Your task to perform on an android device: stop showing notifications on the lock screen Image 0: 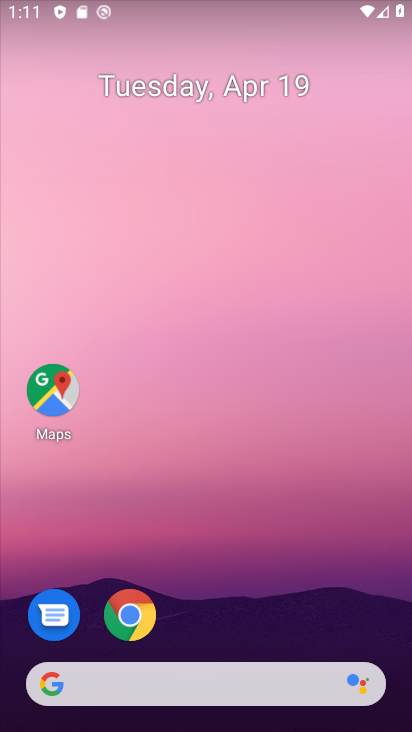
Step 0: click (220, 7)
Your task to perform on an android device: stop showing notifications on the lock screen Image 1: 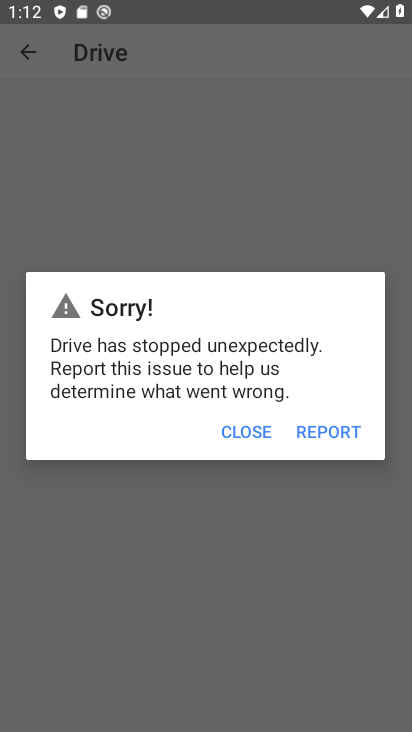
Step 1: press home button
Your task to perform on an android device: stop showing notifications on the lock screen Image 2: 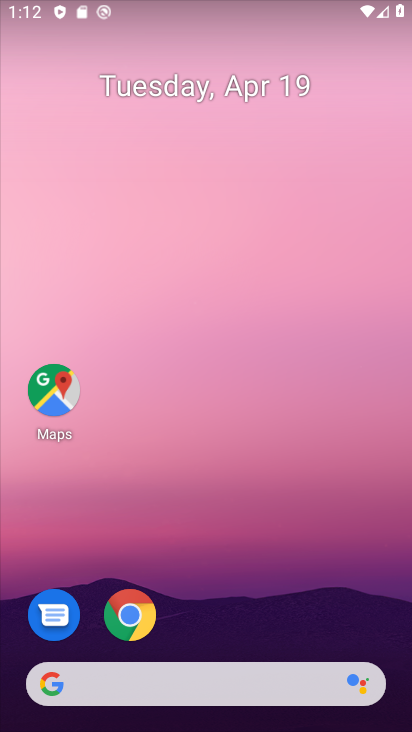
Step 2: drag from (225, 580) to (212, 0)
Your task to perform on an android device: stop showing notifications on the lock screen Image 3: 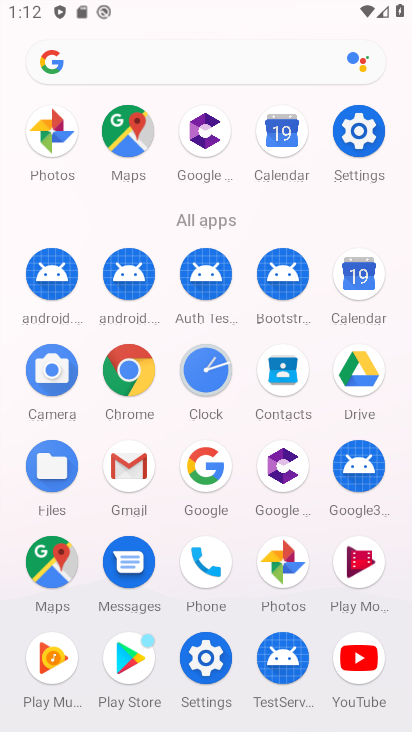
Step 3: click (354, 129)
Your task to perform on an android device: stop showing notifications on the lock screen Image 4: 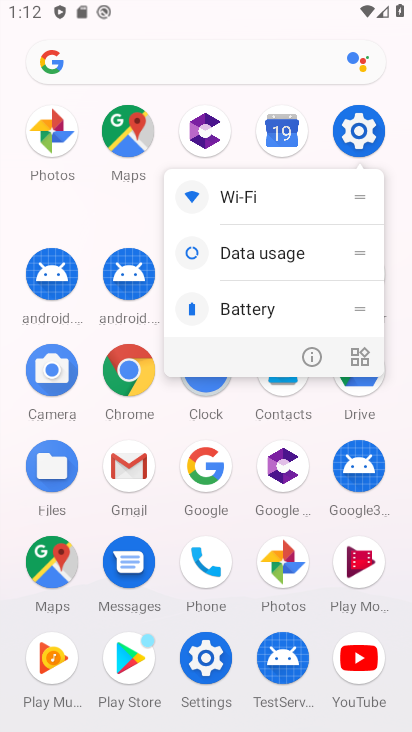
Step 4: click (355, 135)
Your task to perform on an android device: stop showing notifications on the lock screen Image 5: 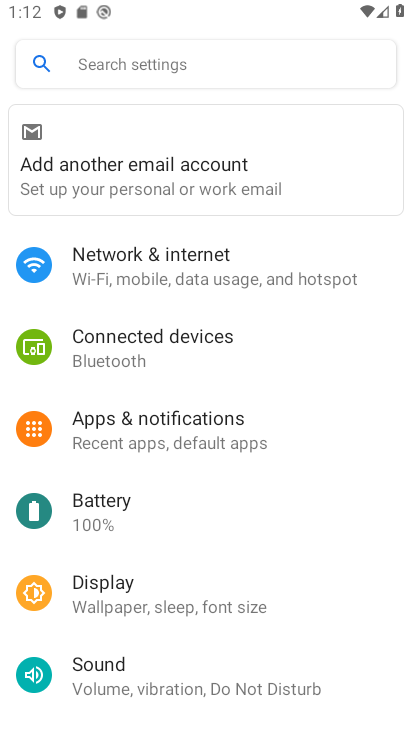
Step 5: drag from (195, 465) to (180, 121)
Your task to perform on an android device: stop showing notifications on the lock screen Image 6: 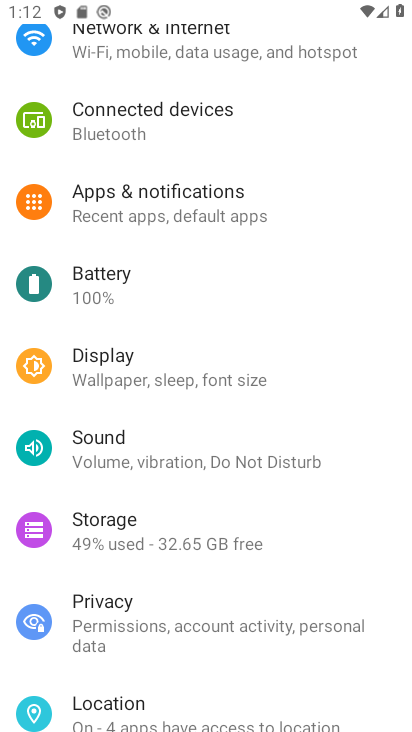
Step 6: click (190, 192)
Your task to perform on an android device: stop showing notifications on the lock screen Image 7: 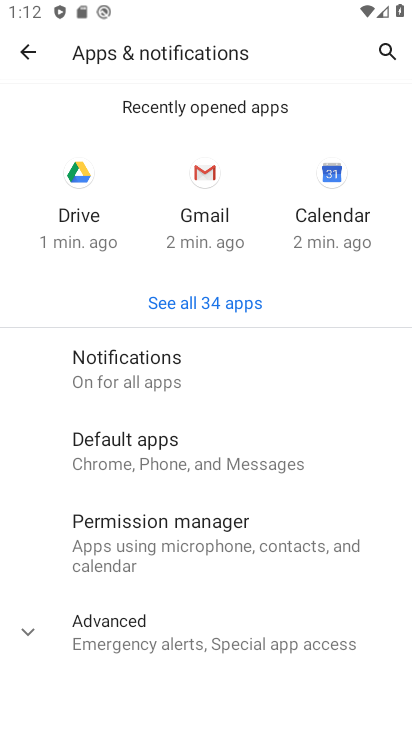
Step 7: click (110, 364)
Your task to perform on an android device: stop showing notifications on the lock screen Image 8: 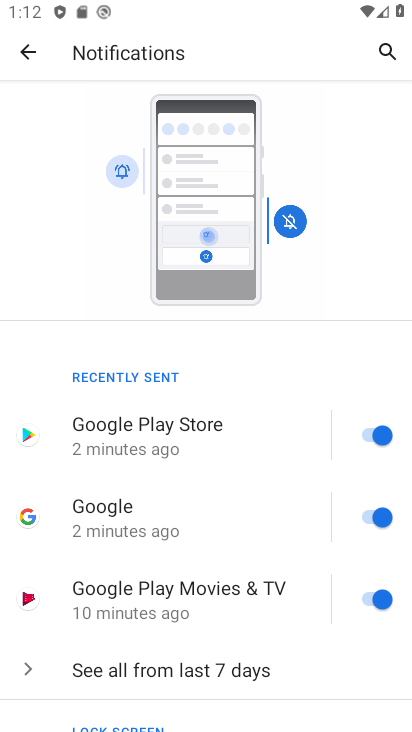
Step 8: drag from (203, 641) to (210, 281)
Your task to perform on an android device: stop showing notifications on the lock screen Image 9: 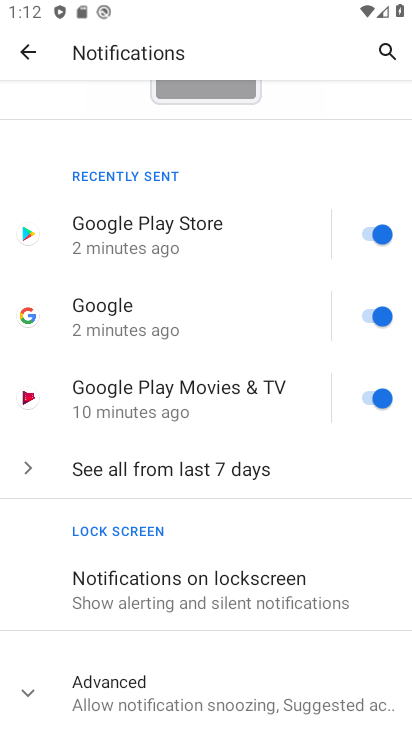
Step 9: click (168, 583)
Your task to perform on an android device: stop showing notifications on the lock screen Image 10: 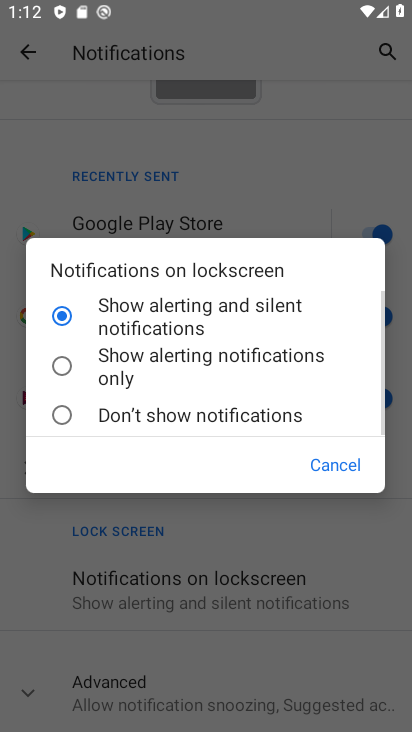
Step 10: click (58, 420)
Your task to perform on an android device: stop showing notifications on the lock screen Image 11: 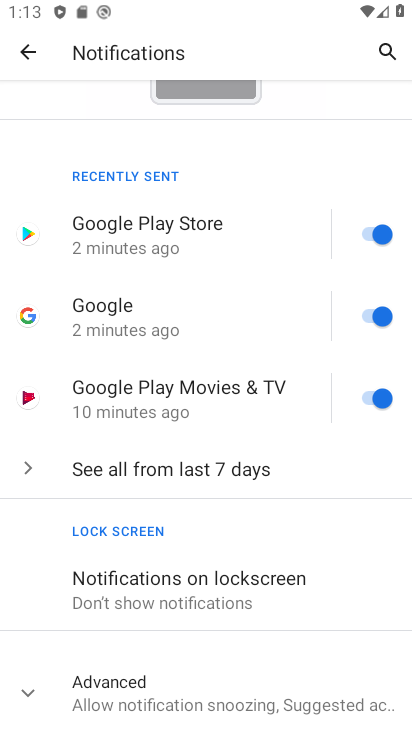
Step 11: task complete